Your task to perform on an android device: open wifi settings Image 0: 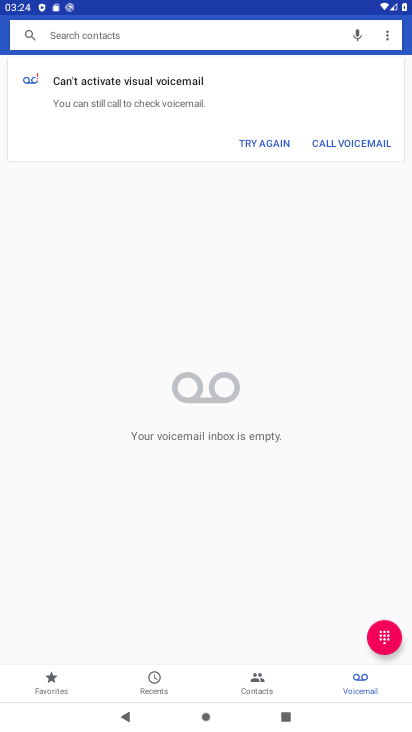
Step 0: press home button
Your task to perform on an android device: open wifi settings Image 1: 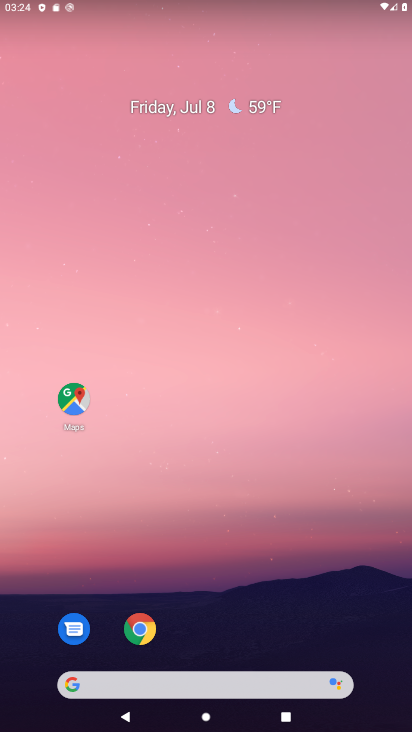
Step 1: drag from (206, 649) to (201, 39)
Your task to perform on an android device: open wifi settings Image 2: 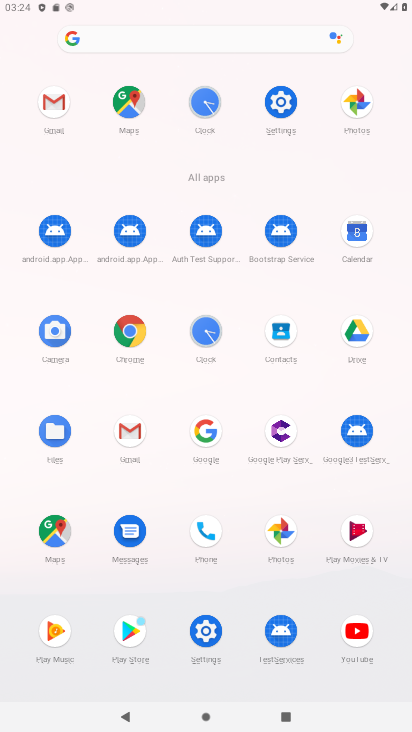
Step 2: click (276, 99)
Your task to perform on an android device: open wifi settings Image 3: 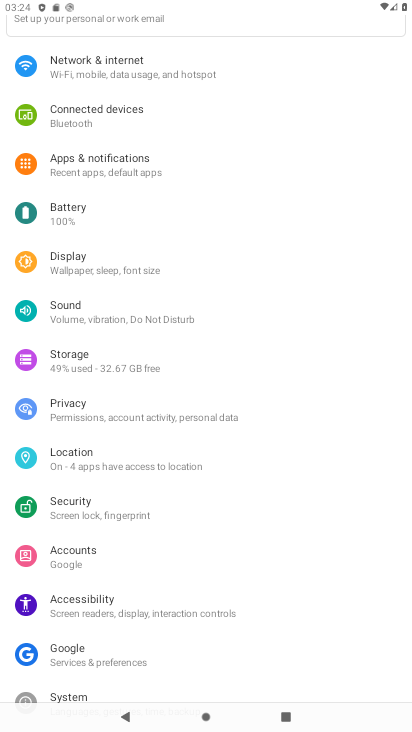
Step 3: click (147, 60)
Your task to perform on an android device: open wifi settings Image 4: 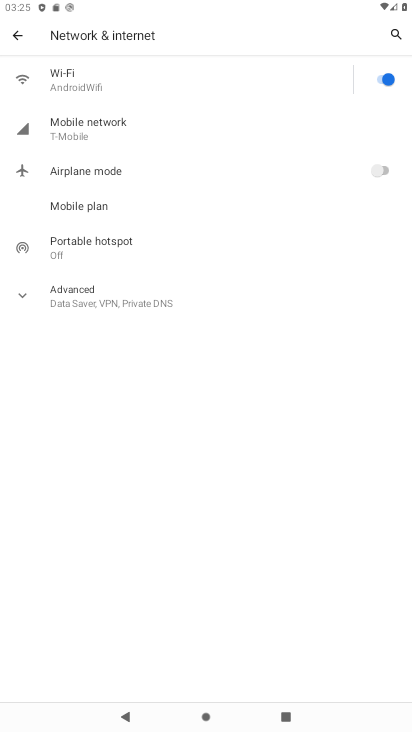
Step 4: click (182, 82)
Your task to perform on an android device: open wifi settings Image 5: 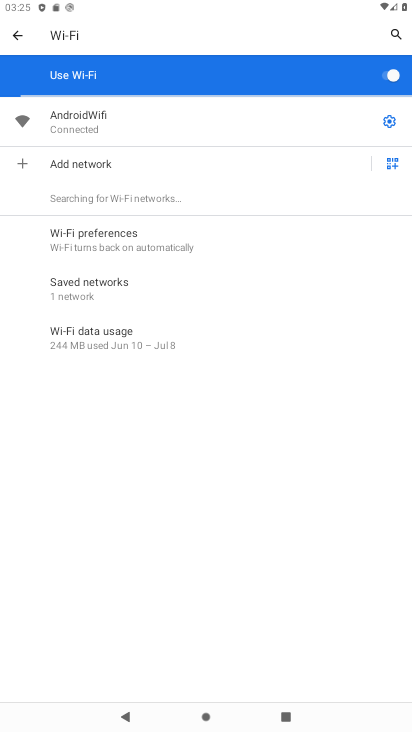
Step 5: task complete